Your task to perform on an android device: toggle priority inbox in the gmail app Image 0: 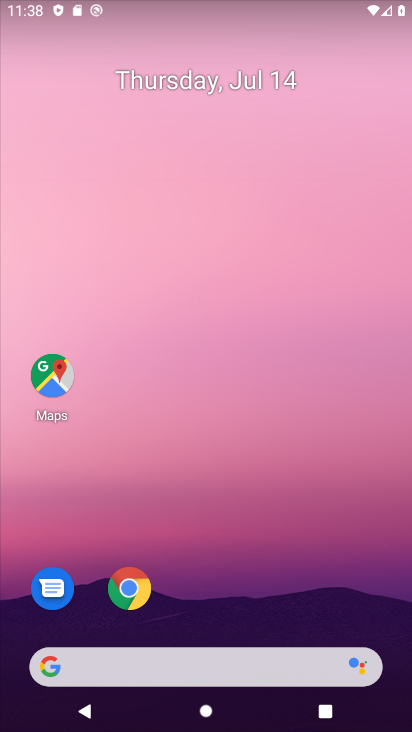
Step 0: drag from (234, 696) to (215, 138)
Your task to perform on an android device: toggle priority inbox in the gmail app Image 1: 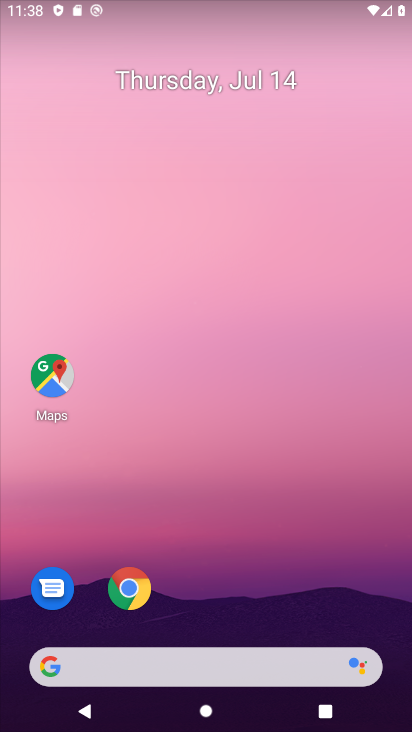
Step 1: drag from (263, 696) to (399, 0)
Your task to perform on an android device: toggle priority inbox in the gmail app Image 2: 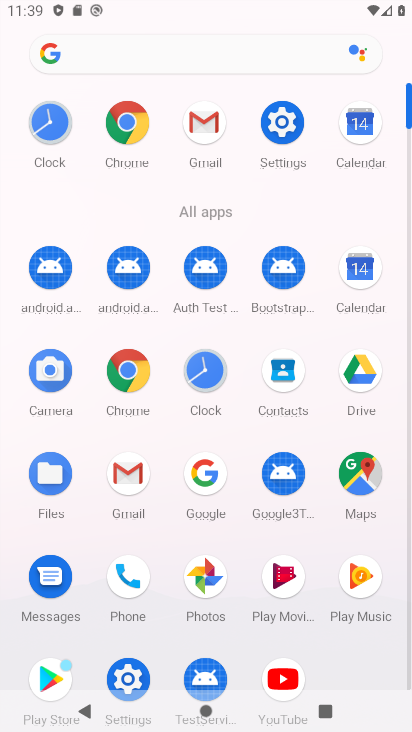
Step 2: click (196, 127)
Your task to perform on an android device: toggle priority inbox in the gmail app Image 3: 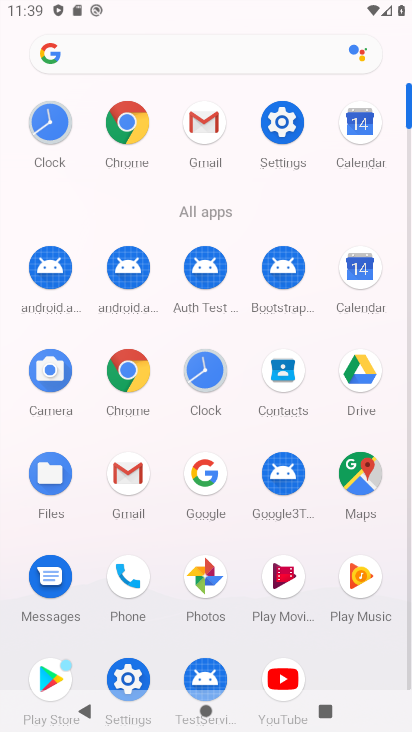
Step 3: click (196, 127)
Your task to perform on an android device: toggle priority inbox in the gmail app Image 4: 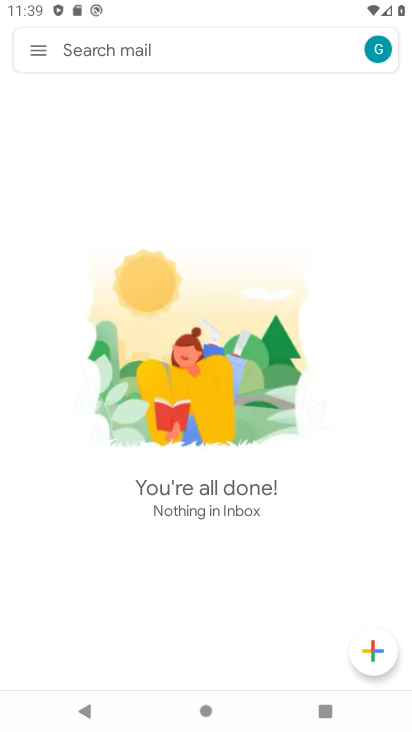
Step 4: click (34, 47)
Your task to perform on an android device: toggle priority inbox in the gmail app Image 5: 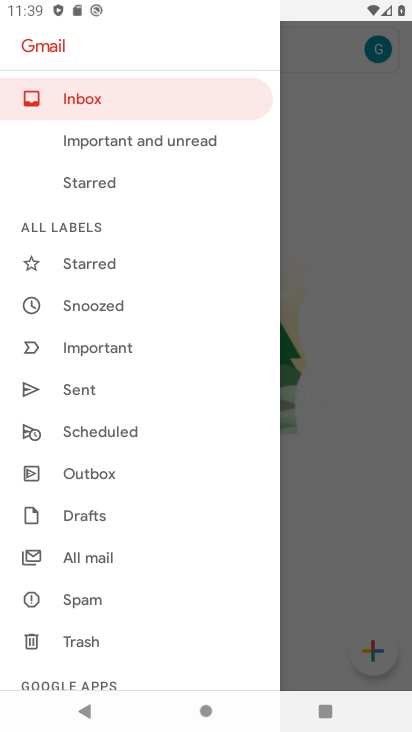
Step 5: drag from (198, 610) to (281, 12)
Your task to perform on an android device: toggle priority inbox in the gmail app Image 6: 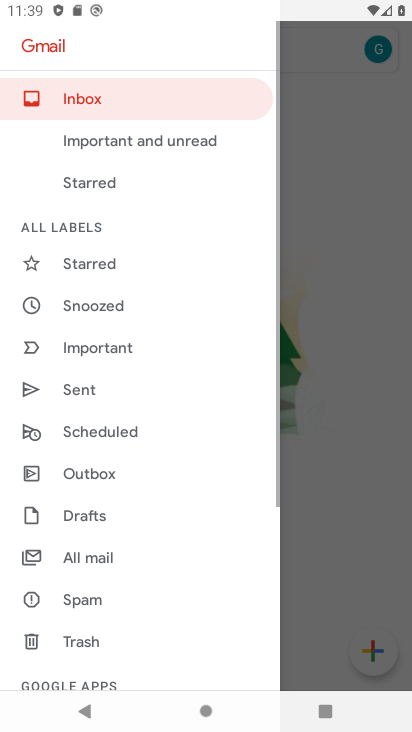
Step 6: drag from (163, 616) to (164, 60)
Your task to perform on an android device: toggle priority inbox in the gmail app Image 7: 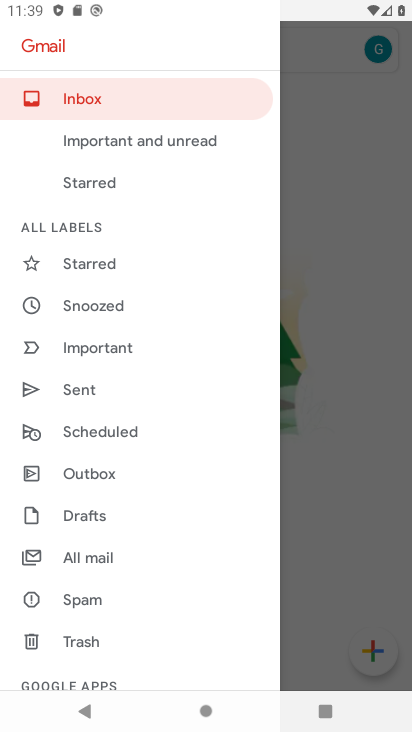
Step 7: drag from (122, 613) to (118, 50)
Your task to perform on an android device: toggle priority inbox in the gmail app Image 8: 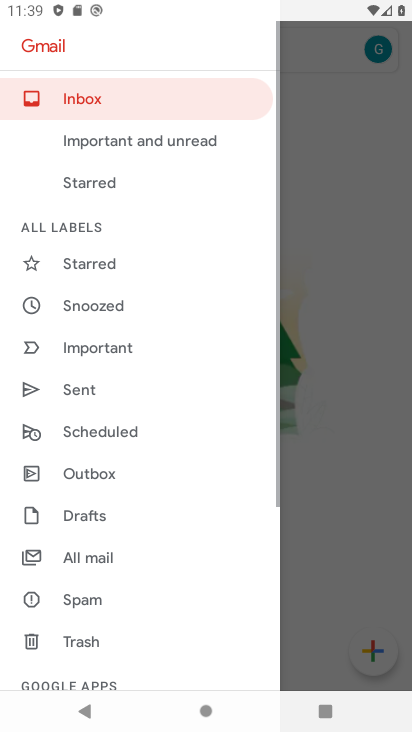
Step 8: drag from (84, 665) to (170, 67)
Your task to perform on an android device: toggle priority inbox in the gmail app Image 9: 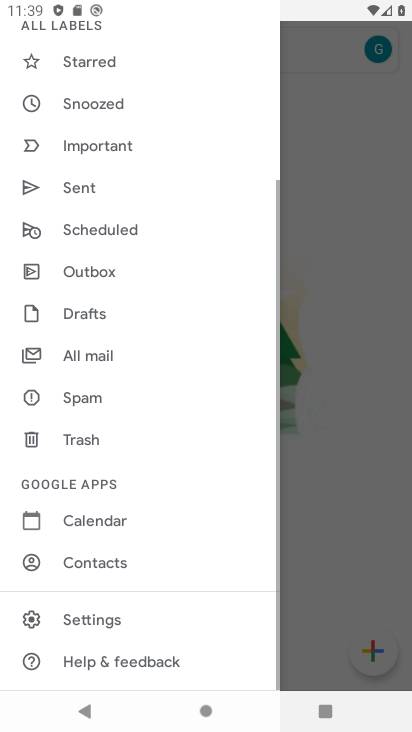
Step 9: click (93, 619)
Your task to perform on an android device: toggle priority inbox in the gmail app Image 10: 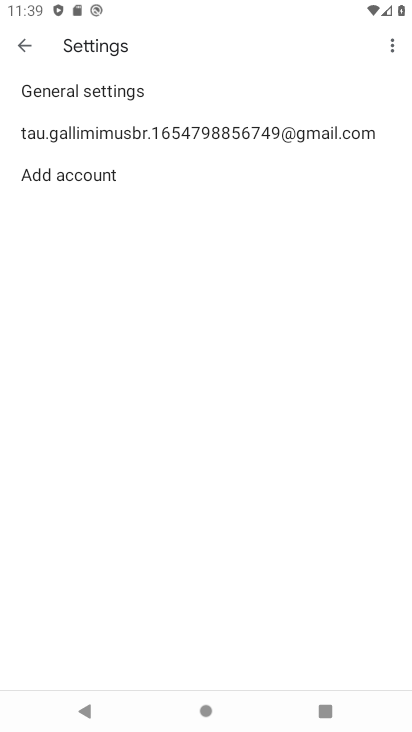
Step 10: click (207, 138)
Your task to perform on an android device: toggle priority inbox in the gmail app Image 11: 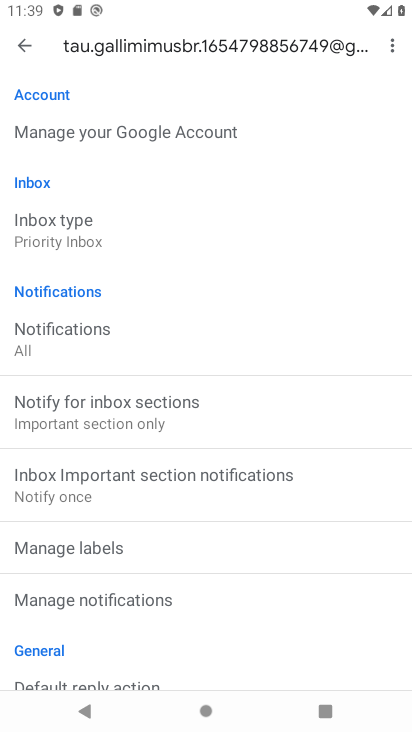
Step 11: click (82, 240)
Your task to perform on an android device: toggle priority inbox in the gmail app Image 12: 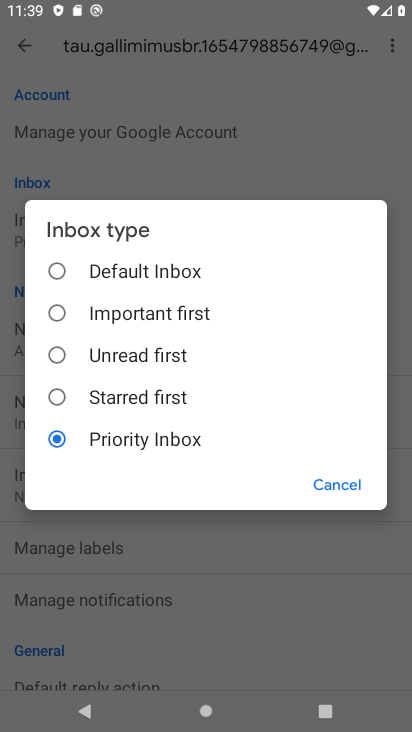
Step 12: click (54, 265)
Your task to perform on an android device: toggle priority inbox in the gmail app Image 13: 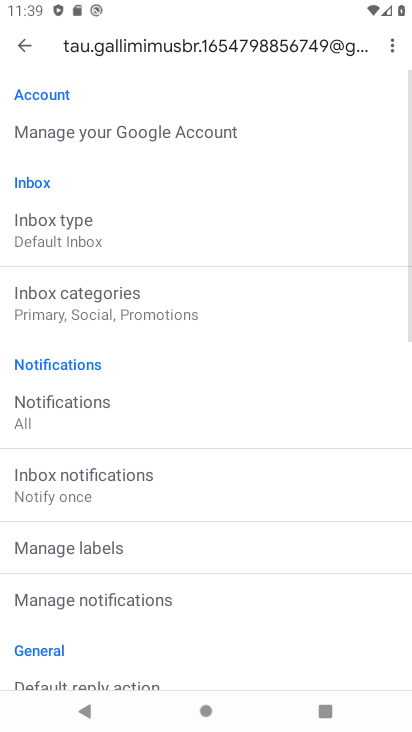
Step 13: task complete